Your task to perform on an android device: move an email to a new category in the gmail app Image 0: 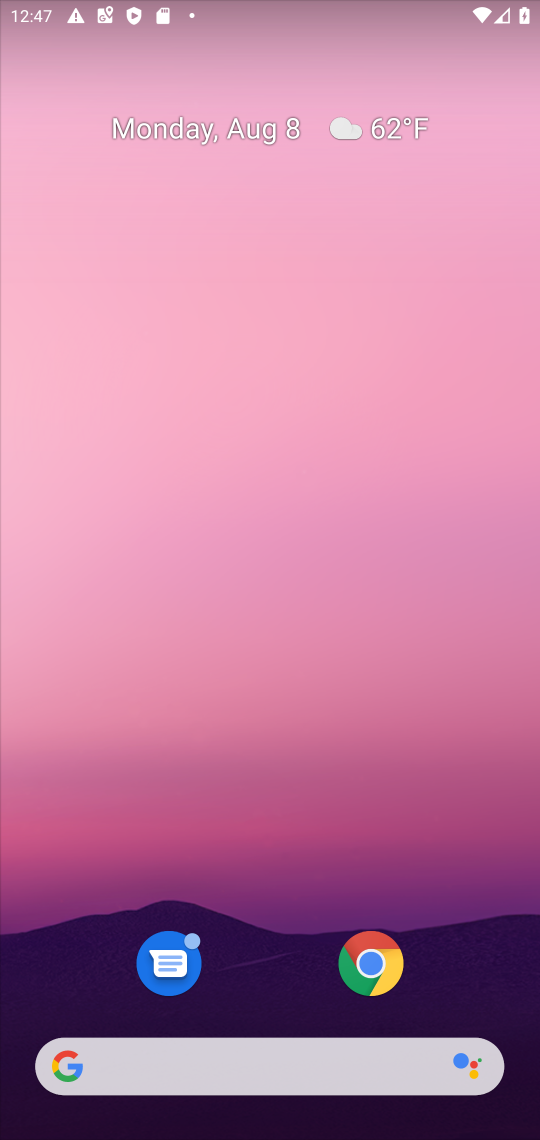
Step 0: drag from (437, 643) to (31, 385)
Your task to perform on an android device: move an email to a new category in the gmail app Image 1: 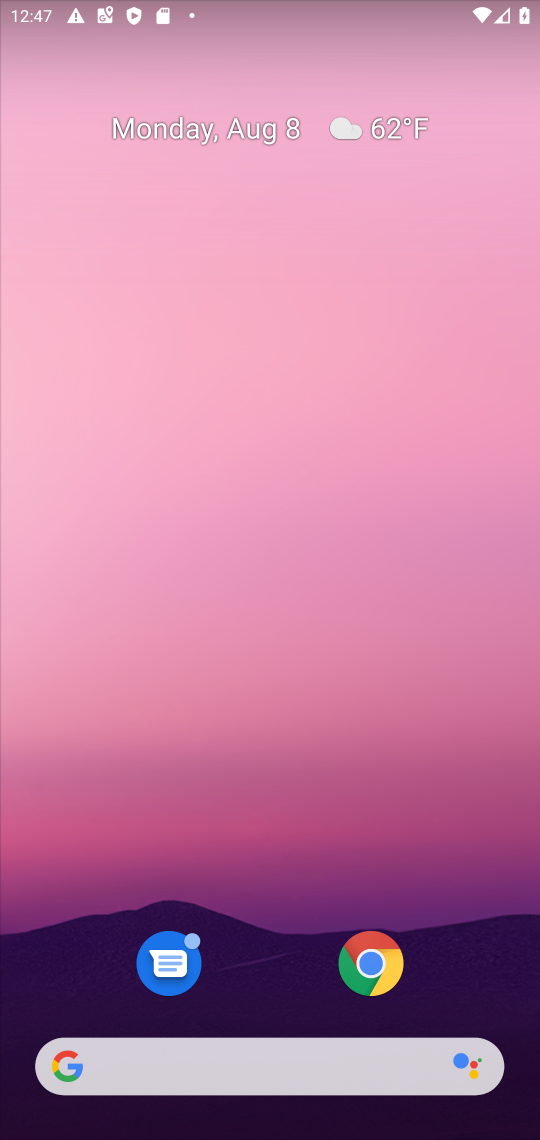
Step 1: drag from (478, 797) to (319, 74)
Your task to perform on an android device: move an email to a new category in the gmail app Image 2: 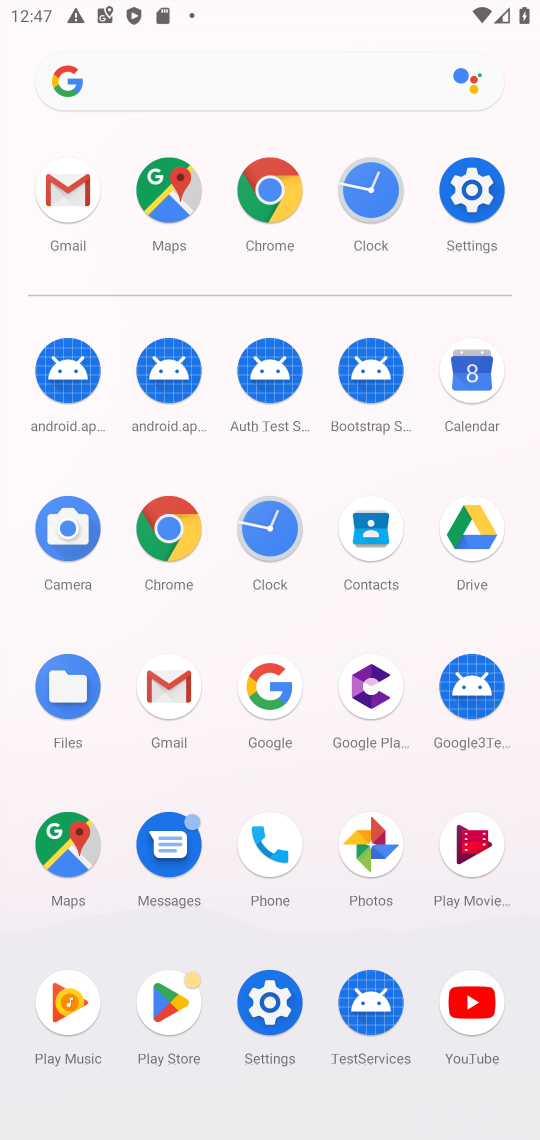
Step 2: click (65, 184)
Your task to perform on an android device: move an email to a new category in the gmail app Image 3: 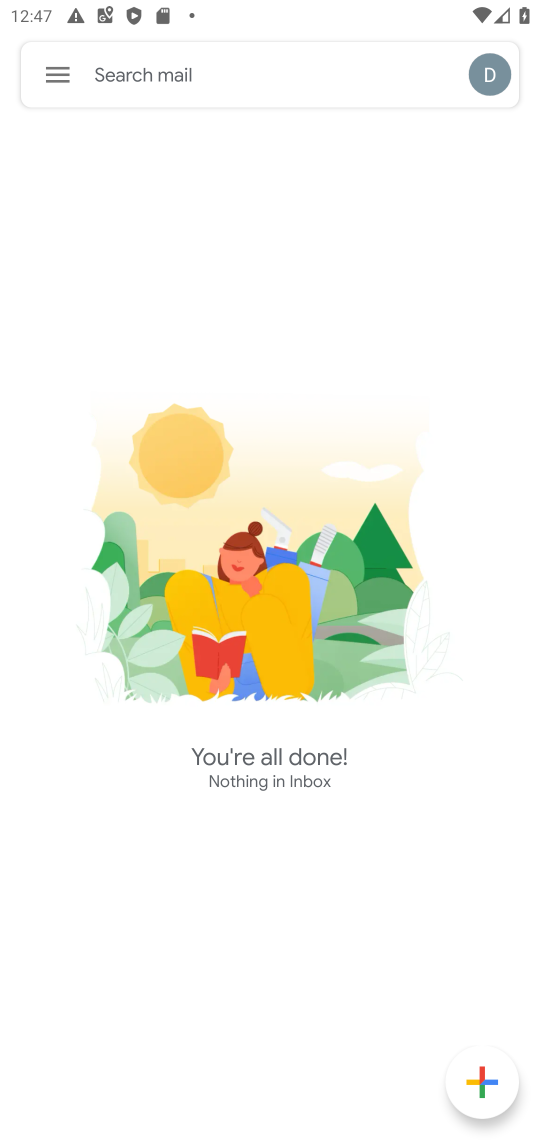
Step 3: task complete